Your task to perform on an android device: Is it going to rain today? Image 0: 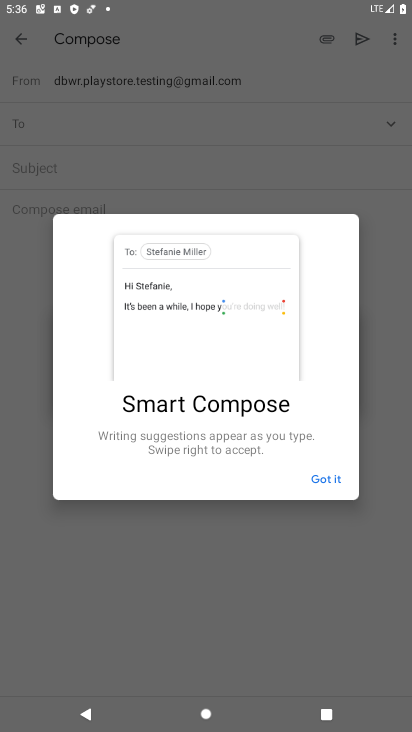
Step 0: press home button
Your task to perform on an android device: Is it going to rain today? Image 1: 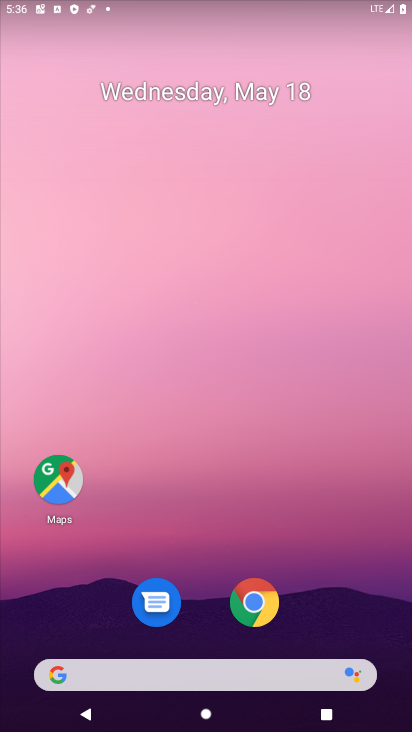
Step 1: drag from (345, 651) to (345, 40)
Your task to perform on an android device: Is it going to rain today? Image 2: 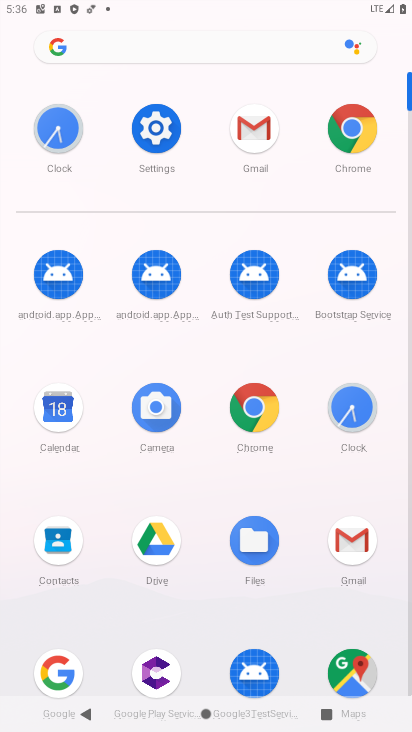
Step 2: click (250, 419)
Your task to perform on an android device: Is it going to rain today? Image 3: 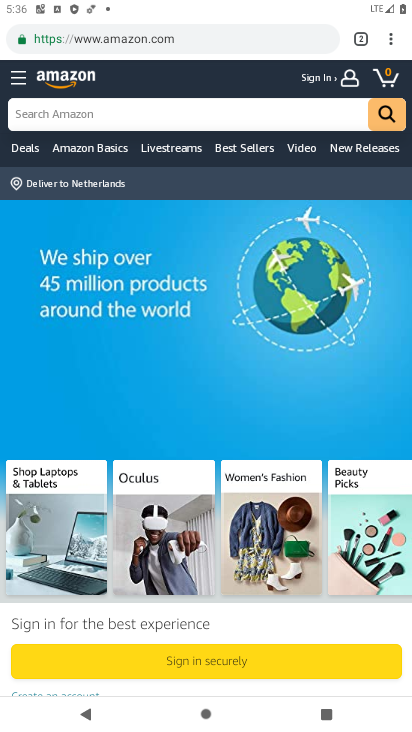
Step 3: press home button
Your task to perform on an android device: Is it going to rain today? Image 4: 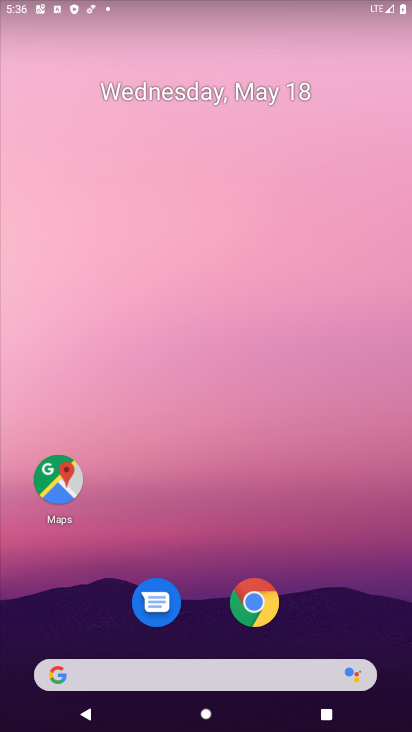
Step 4: drag from (33, 358) to (405, 366)
Your task to perform on an android device: Is it going to rain today? Image 5: 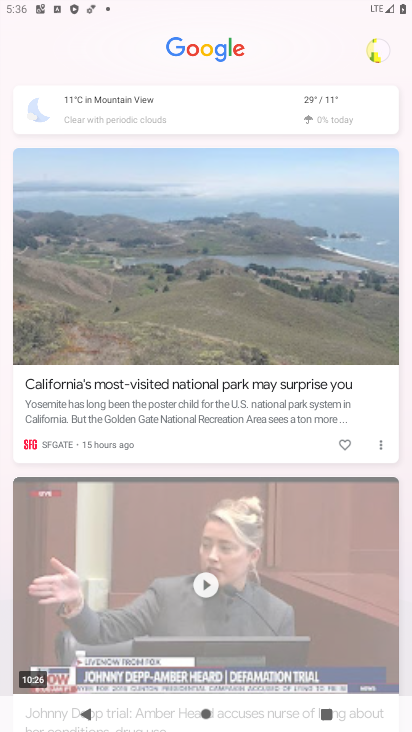
Step 5: drag from (43, 369) to (411, 327)
Your task to perform on an android device: Is it going to rain today? Image 6: 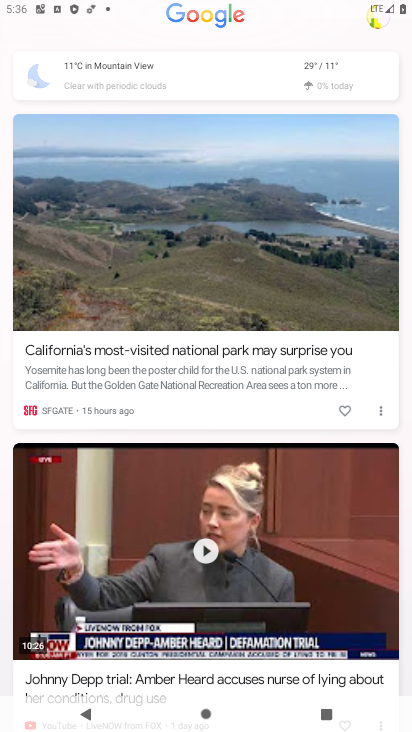
Step 6: click (310, 88)
Your task to perform on an android device: Is it going to rain today? Image 7: 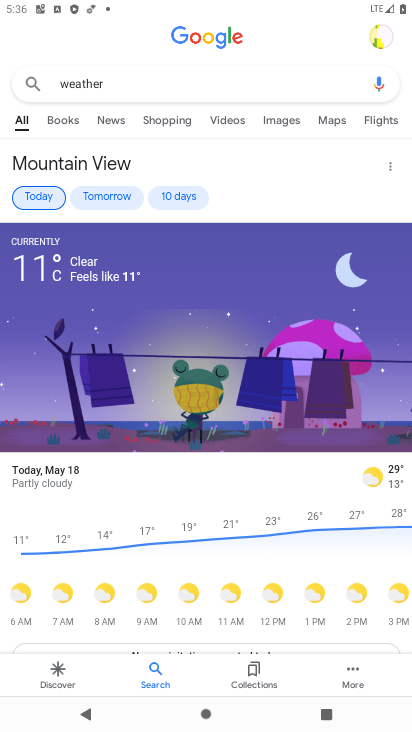
Step 7: task complete